Your task to perform on an android device: turn on priority inbox in the gmail app Image 0: 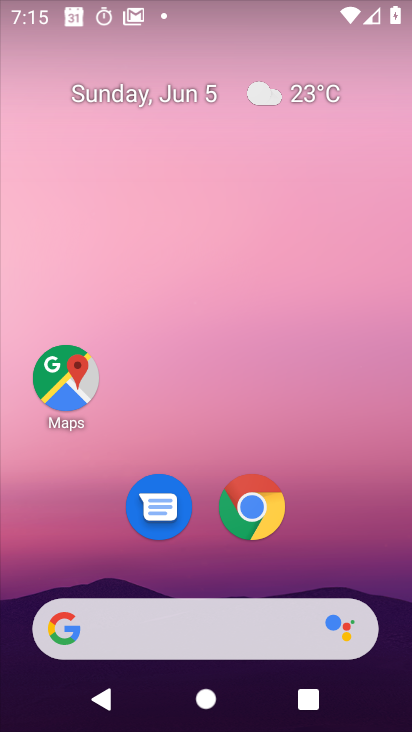
Step 0: drag from (314, 652) to (211, 59)
Your task to perform on an android device: turn on priority inbox in the gmail app Image 1: 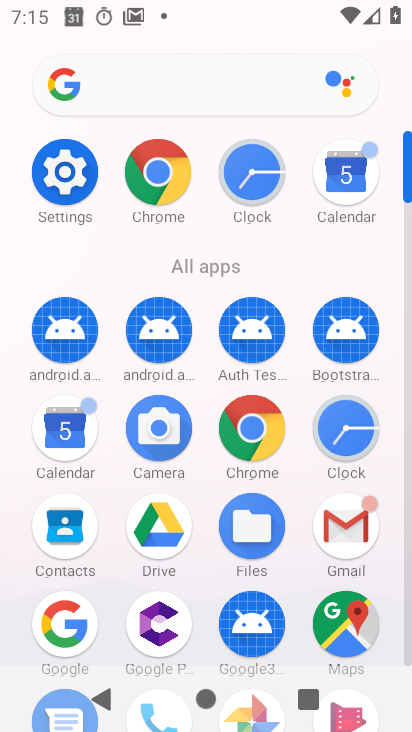
Step 1: click (358, 535)
Your task to perform on an android device: turn on priority inbox in the gmail app Image 2: 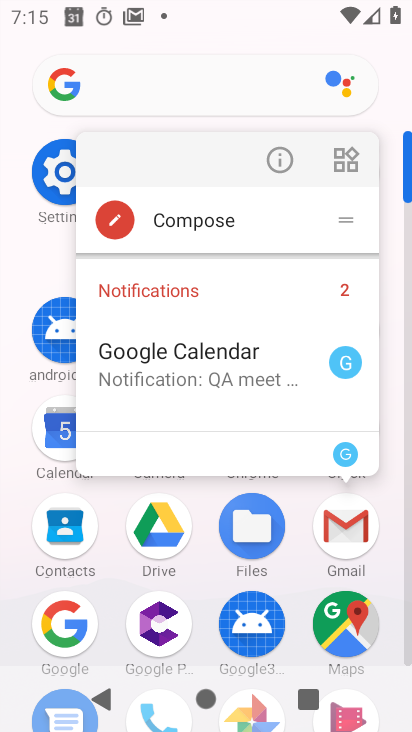
Step 2: click (345, 531)
Your task to perform on an android device: turn on priority inbox in the gmail app Image 3: 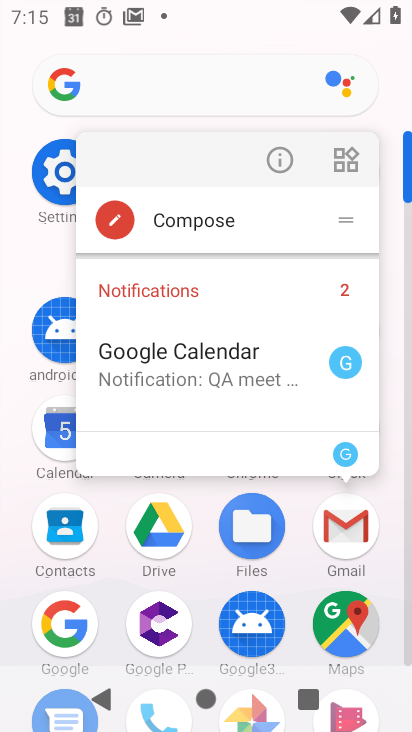
Step 3: click (345, 530)
Your task to perform on an android device: turn on priority inbox in the gmail app Image 4: 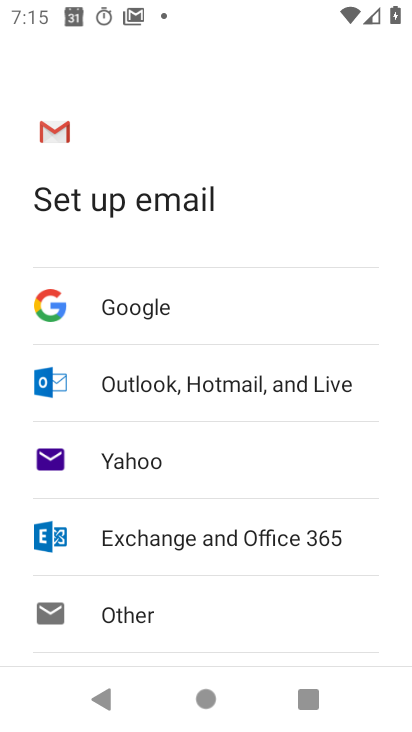
Step 4: click (146, 314)
Your task to perform on an android device: turn on priority inbox in the gmail app Image 5: 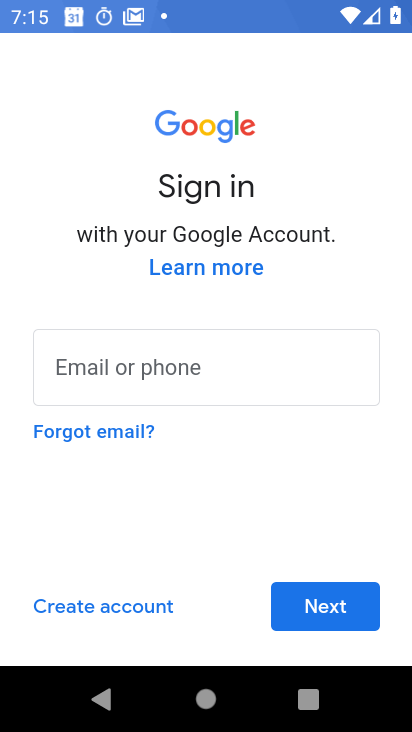
Step 5: click (156, 359)
Your task to perform on an android device: turn on priority inbox in the gmail app Image 6: 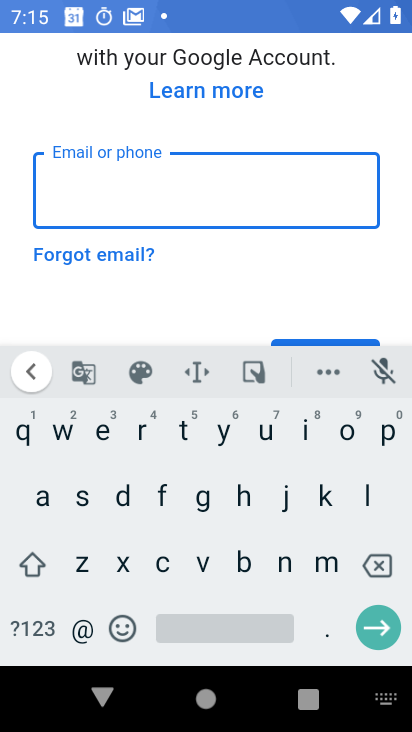
Step 6: press back button
Your task to perform on an android device: turn on priority inbox in the gmail app Image 7: 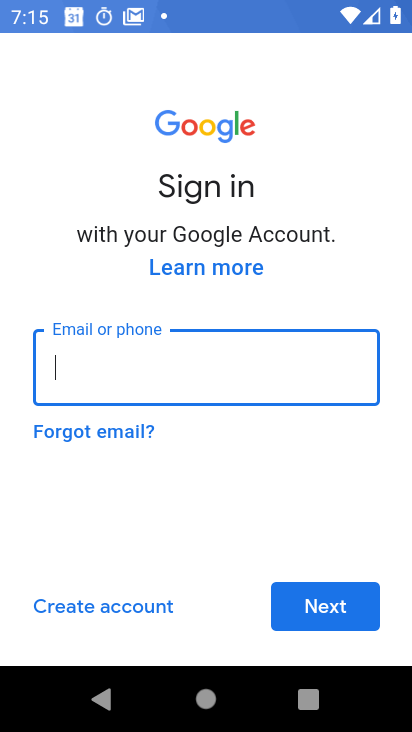
Step 7: press back button
Your task to perform on an android device: turn on priority inbox in the gmail app Image 8: 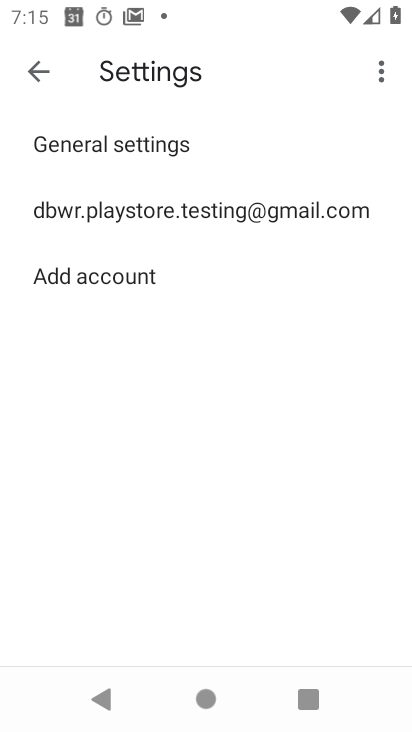
Step 8: click (59, 212)
Your task to perform on an android device: turn on priority inbox in the gmail app Image 9: 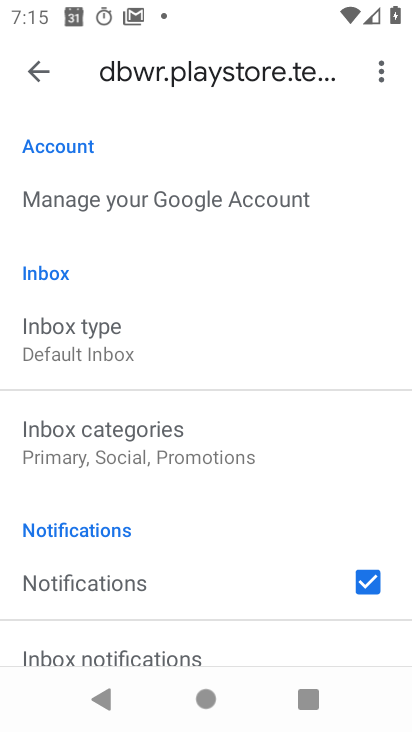
Step 9: click (134, 341)
Your task to perform on an android device: turn on priority inbox in the gmail app Image 10: 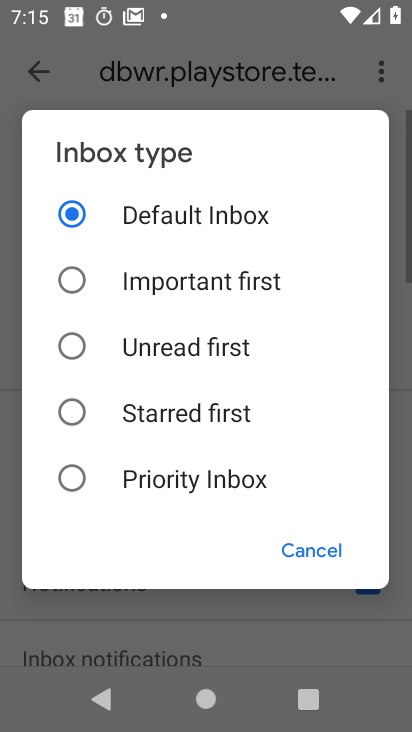
Step 10: click (152, 491)
Your task to perform on an android device: turn on priority inbox in the gmail app Image 11: 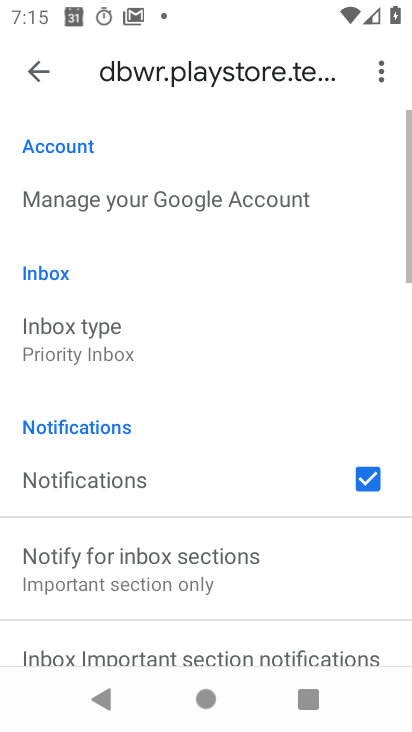
Step 11: task complete